Your task to perform on an android device: Open Wikipedia Image 0: 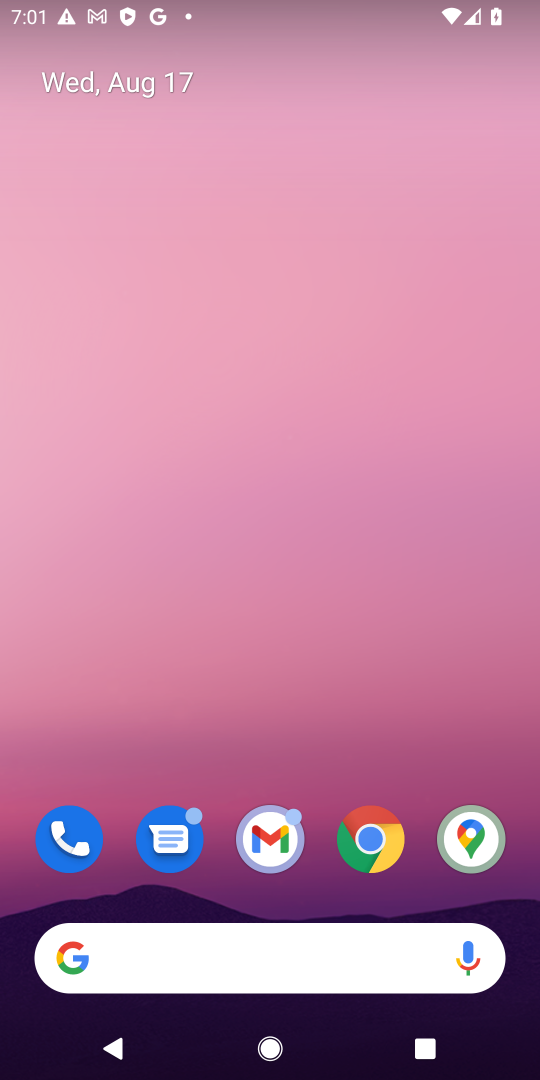
Step 0: click (379, 863)
Your task to perform on an android device: Open Wikipedia Image 1: 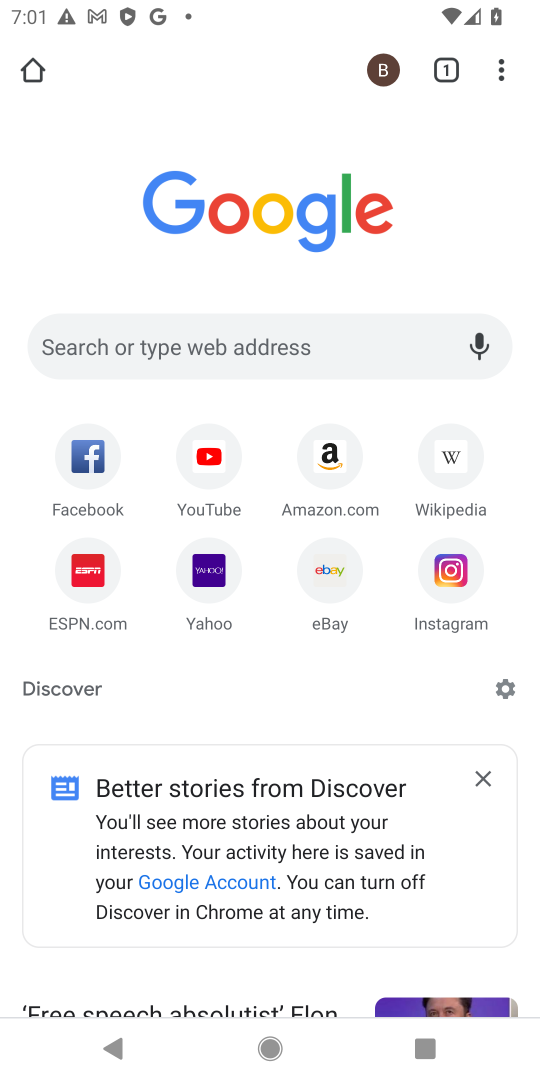
Step 1: click (436, 441)
Your task to perform on an android device: Open Wikipedia Image 2: 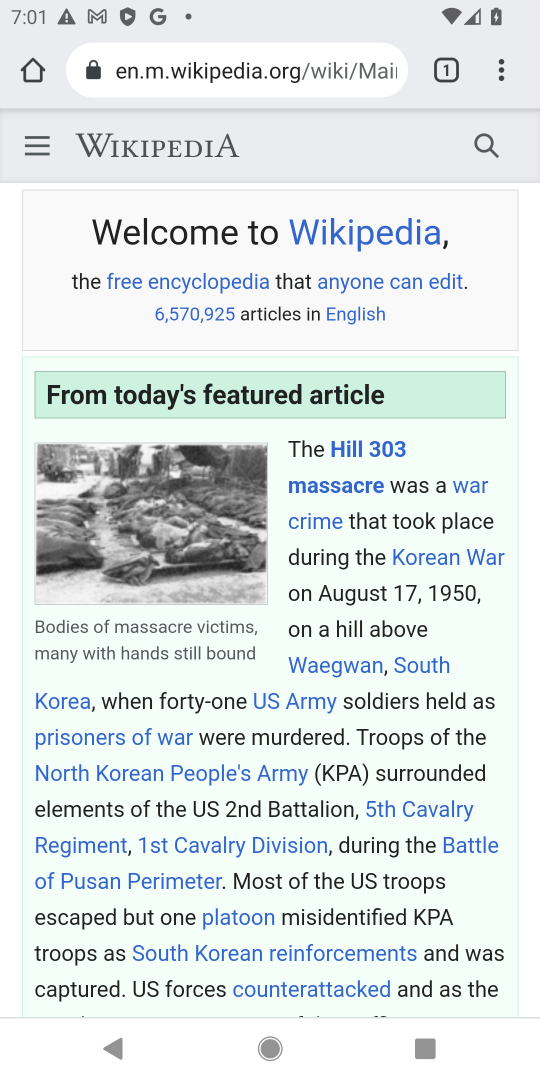
Step 2: task complete